Your task to perform on an android device: Open Reddit.com Image 0: 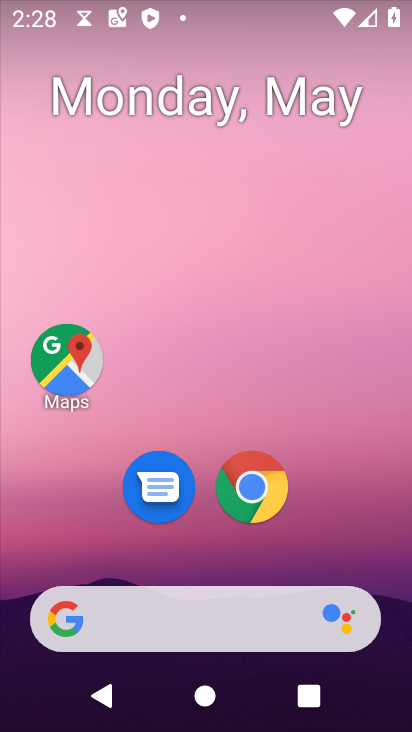
Step 0: click (264, 489)
Your task to perform on an android device: Open Reddit.com Image 1: 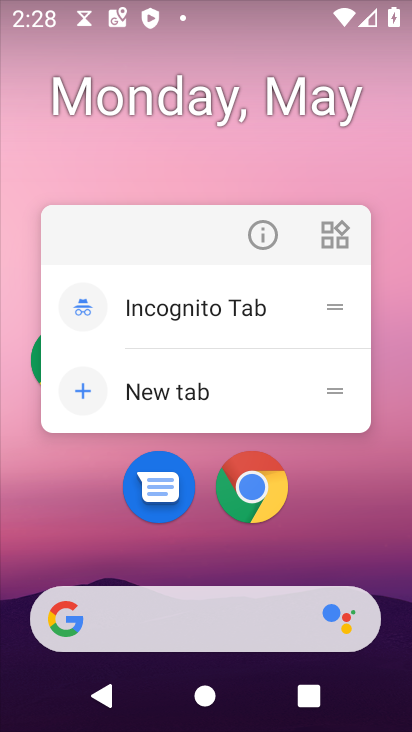
Step 1: click (269, 487)
Your task to perform on an android device: Open Reddit.com Image 2: 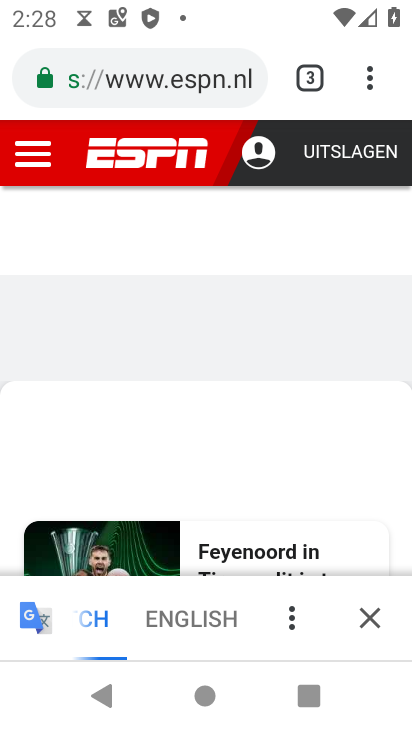
Step 2: click (181, 94)
Your task to perform on an android device: Open Reddit.com Image 3: 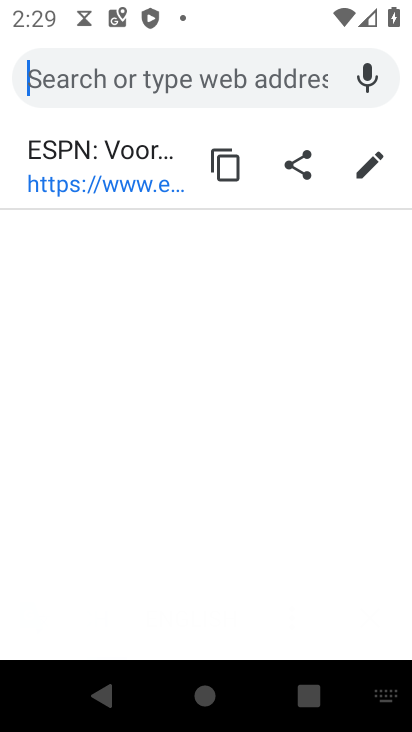
Step 3: type "reddit.com"
Your task to perform on an android device: Open Reddit.com Image 4: 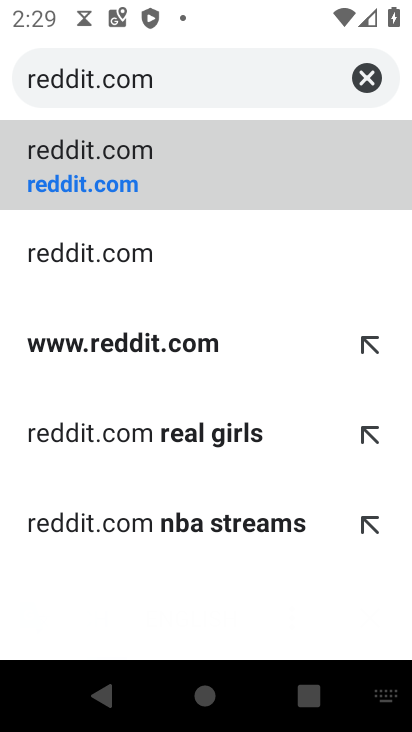
Step 4: click (123, 180)
Your task to perform on an android device: Open Reddit.com Image 5: 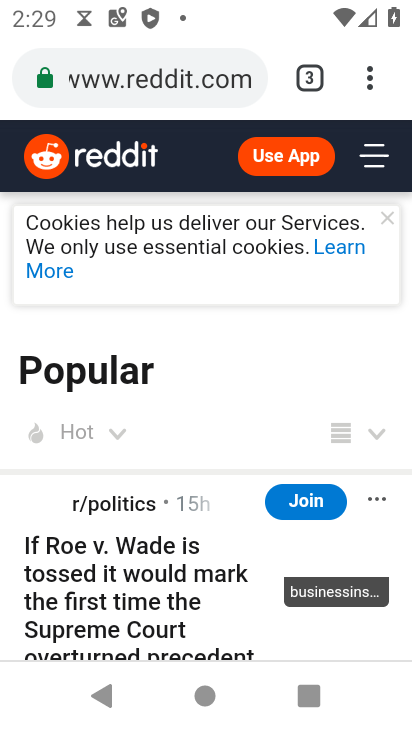
Step 5: task complete